Your task to perform on an android device: Open Google Image 0: 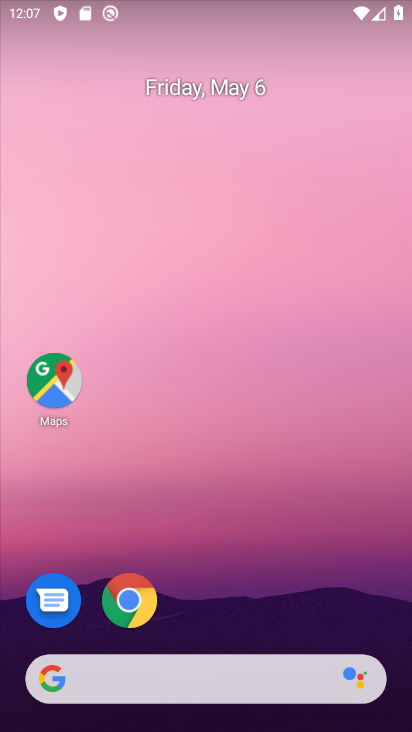
Step 0: drag from (279, 600) to (260, 83)
Your task to perform on an android device: Open Google Image 1: 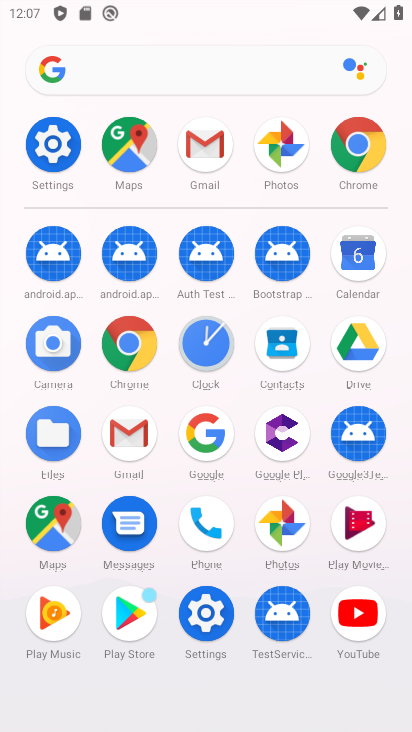
Step 1: click (210, 458)
Your task to perform on an android device: Open Google Image 2: 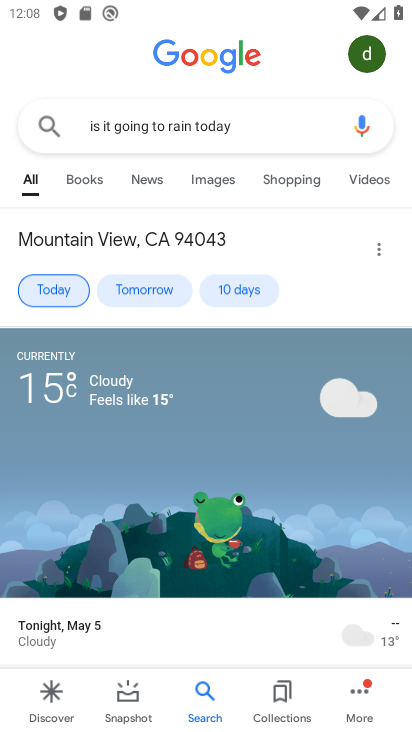
Step 2: press back button
Your task to perform on an android device: Open Google Image 3: 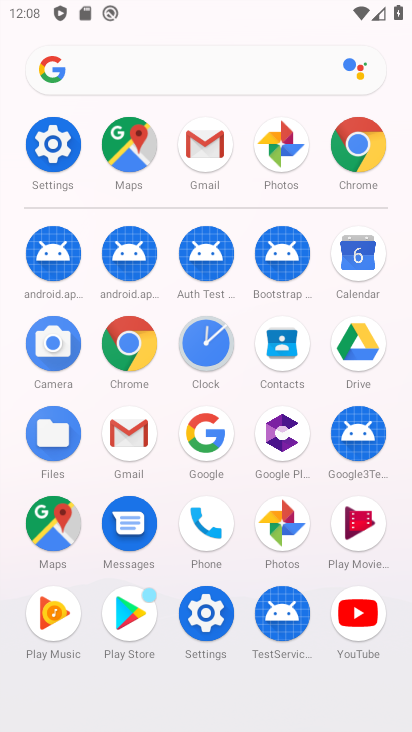
Step 3: click (201, 434)
Your task to perform on an android device: Open Google Image 4: 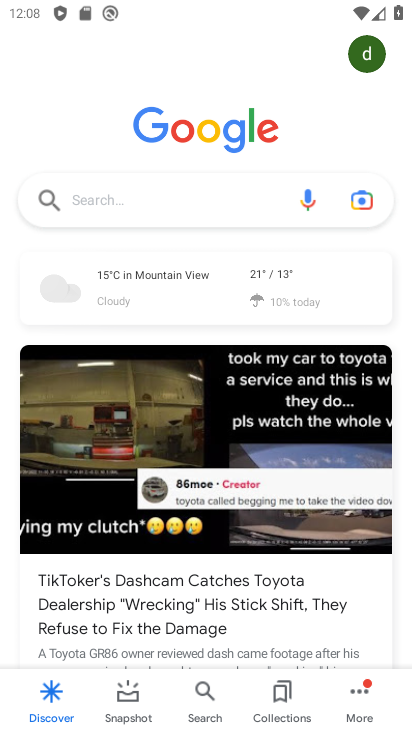
Step 4: task complete